Your task to perform on an android device: Show me the alarms in the clock app Image 0: 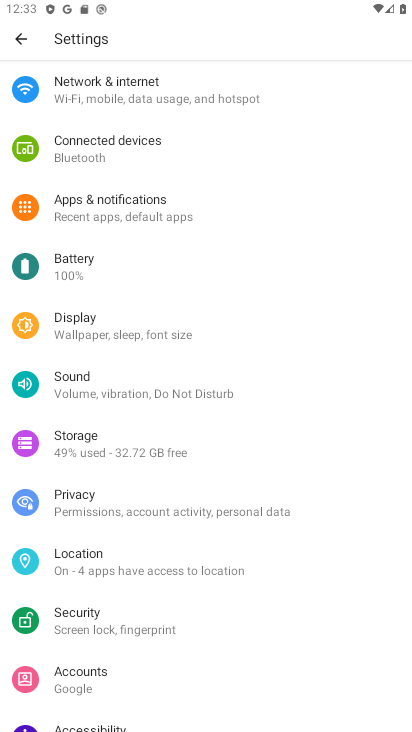
Step 0: press home button
Your task to perform on an android device: Show me the alarms in the clock app Image 1: 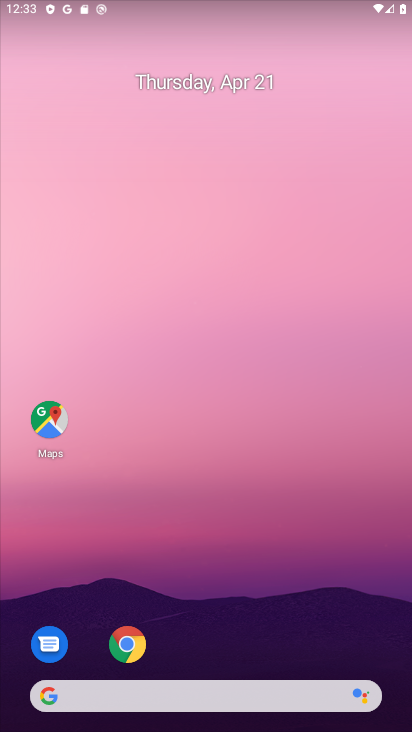
Step 1: drag from (291, 583) to (274, 101)
Your task to perform on an android device: Show me the alarms in the clock app Image 2: 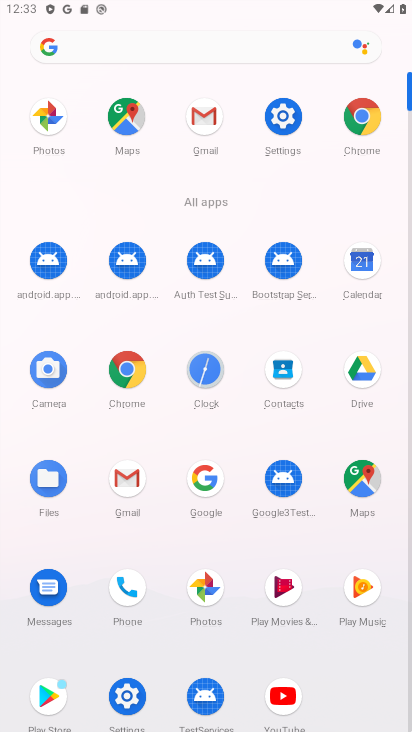
Step 2: click (194, 371)
Your task to perform on an android device: Show me the alarms in the clock app Image 3: 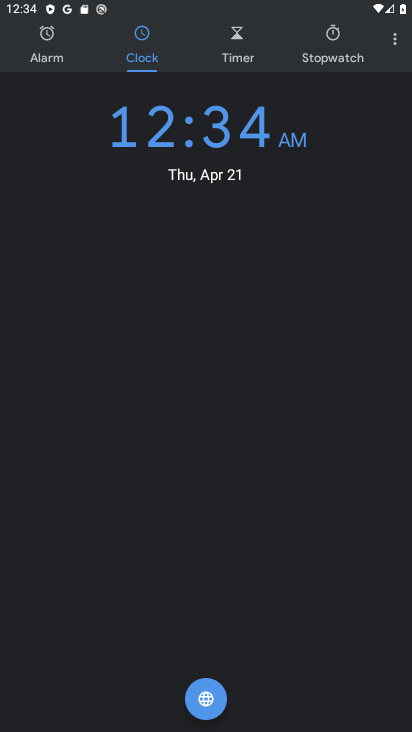
Step 3: click (56, 51)
Your task to perform on an android device: Show me the alarms in the clock app Image 4: 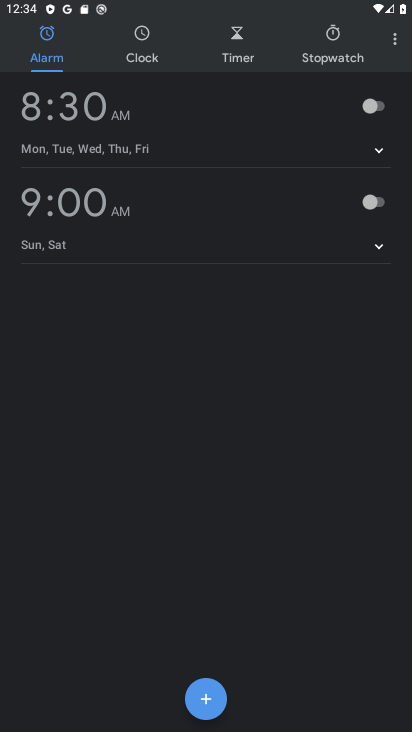
Step 4: task complete